Your task to perform on an android device: Go to Wikipedia Image 0: 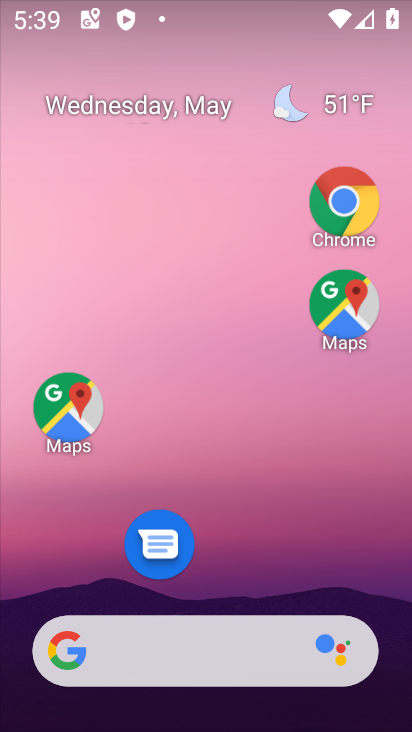
Step 0: click (324, 231)
Your task to perform on an android device: Go to Wikipedia Image 1: 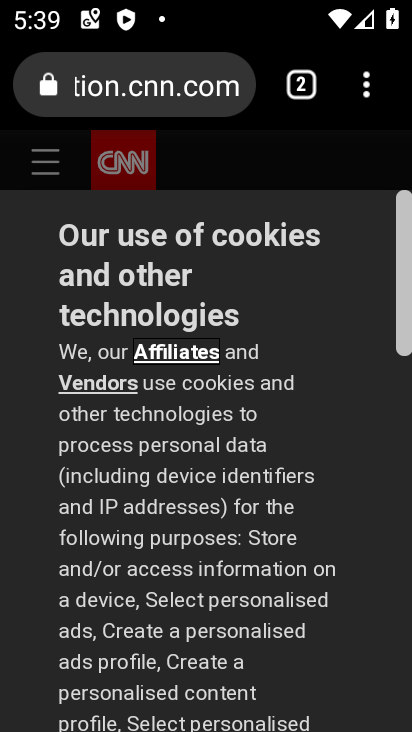
Step 1: press back button
Your task to perform on an android device: Go to Wikipedia Image 2: 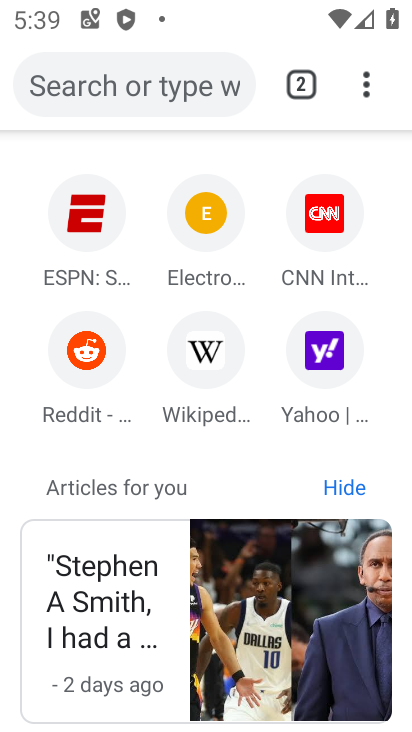
Step 2: click (214, 378)
Your task to perform on an android device: Go to Wikipedia Image 3: 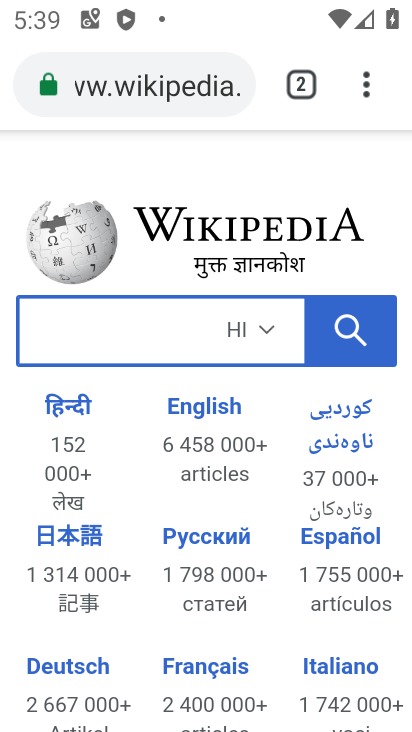
Step 3: task complete